Your task to perform on an android device: delete the emails in spam in the gmail app Image 0: 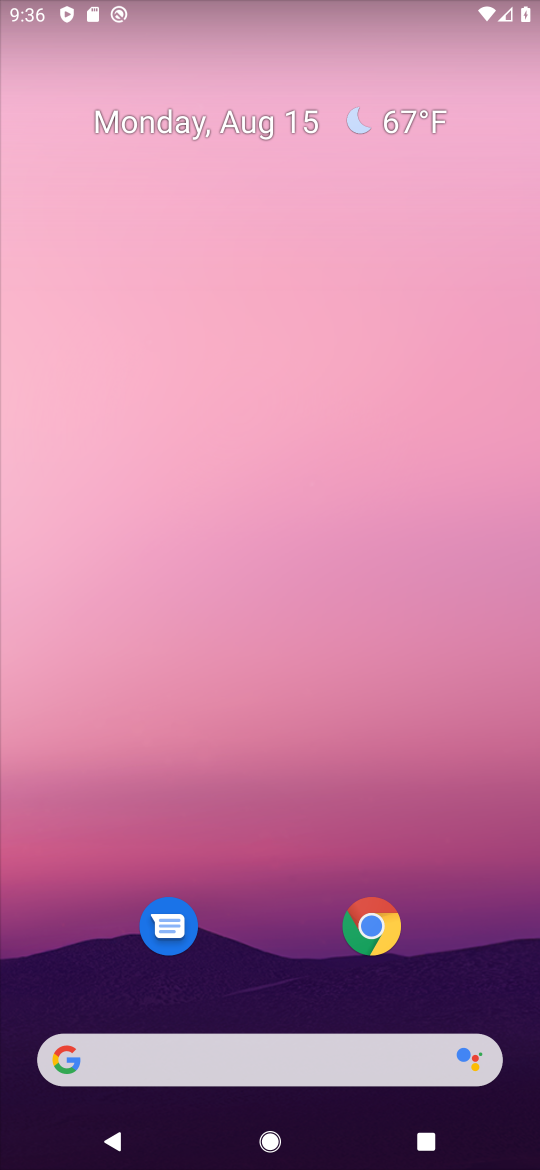
Step 0: press home button
Your task to perform on an android device: delete the emails in spam in the gmail app Image 1: 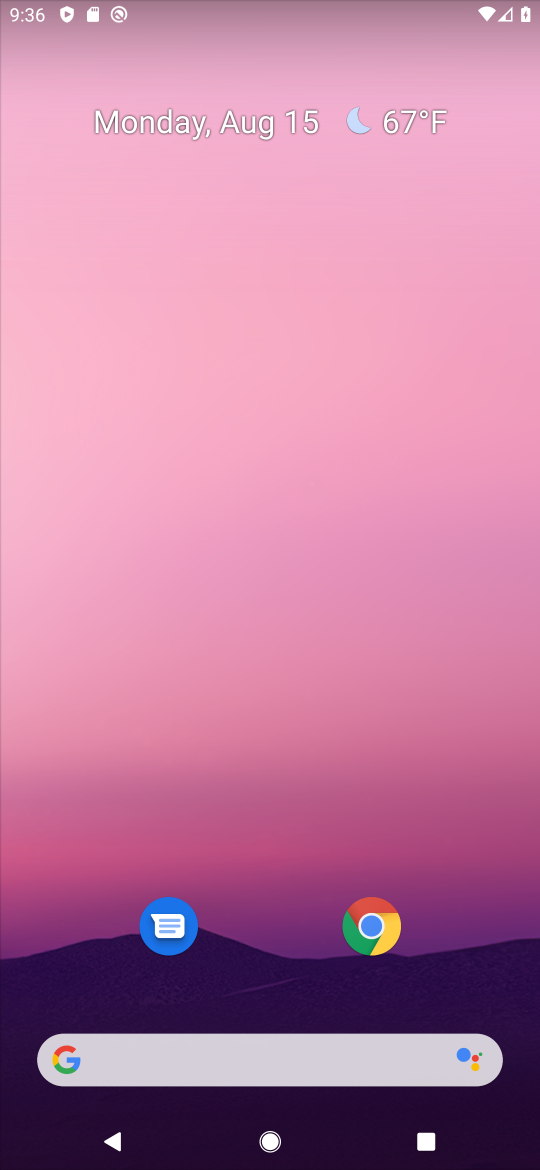
Step 1: press home button
Your task to perform on an android device: delete the emails in spam in the gmail app Image 2: 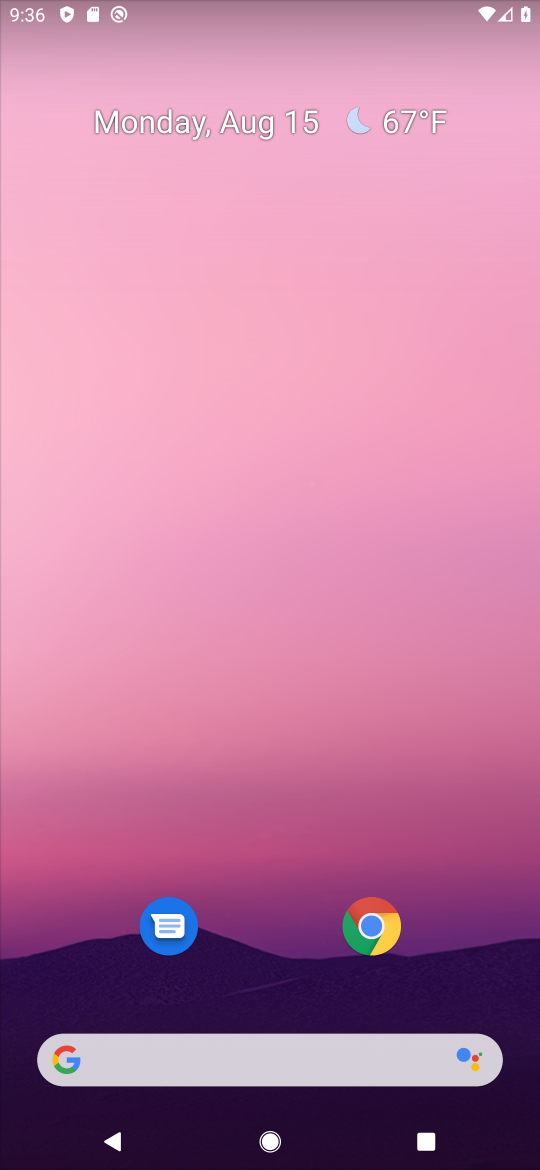
Step 2: drag from (317, 957) to (72, 55)
Your task to perform on an android device: delete the emails in spam in the gmail app Image 3: 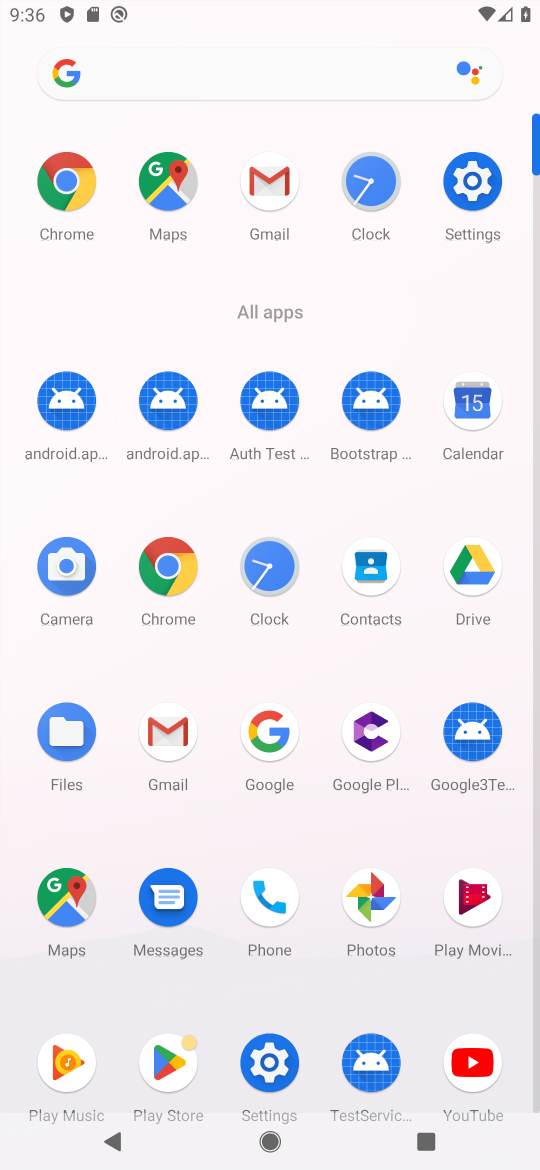
Step 3: click (289, 210)
Your task to perform on an android device: delete the emails in spam in the gmail app Image 4: 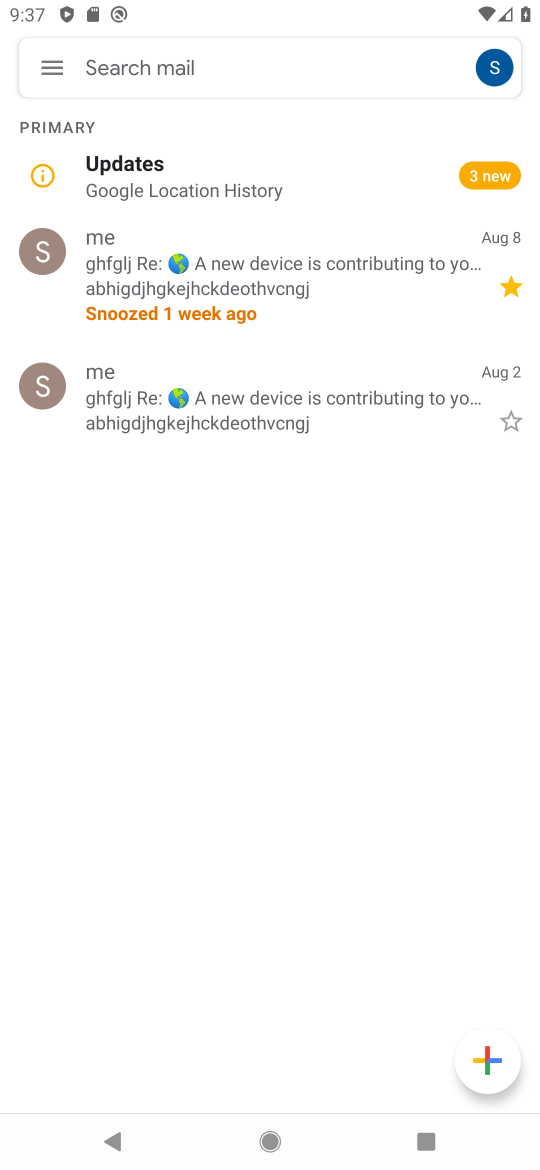
Step 4: click (290, 277)
Your task to perform on an android device: delete the emails in spam in the gmail app Image 5: 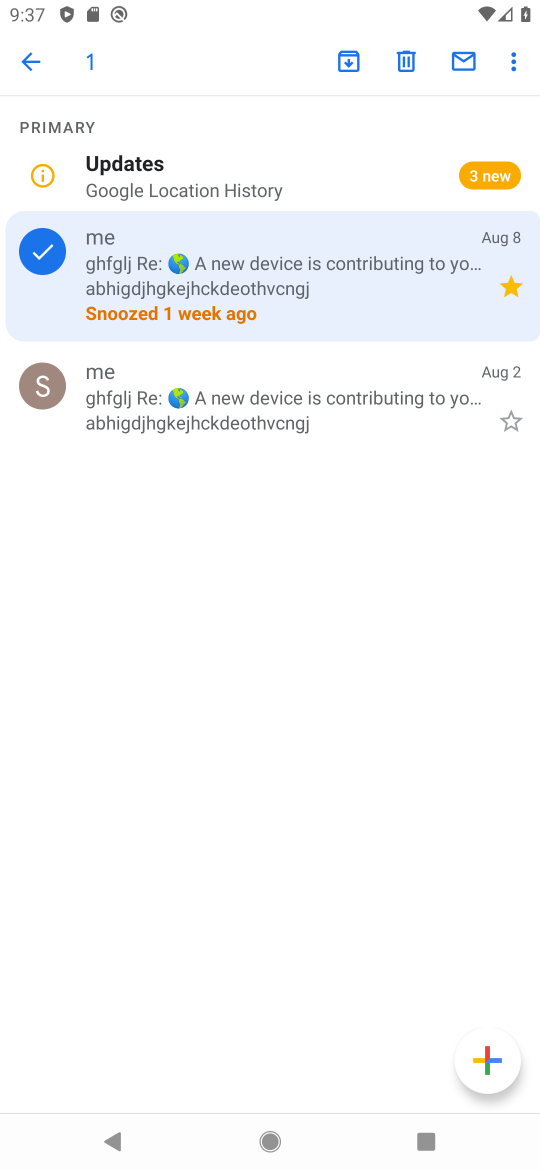
Step 5: click (418, 61)
Your task to perform on an android device: delete the emails in spam in the gmail app Image 6: 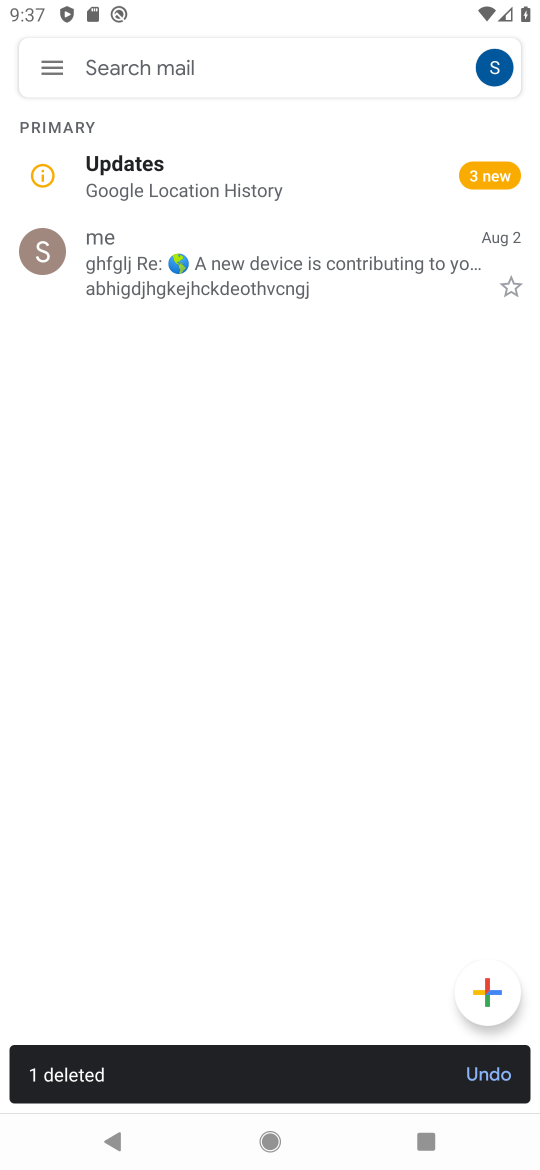
Step 6: task complete